Your task to perform on an android device: manage bookmarks in the chrome app Image 0: 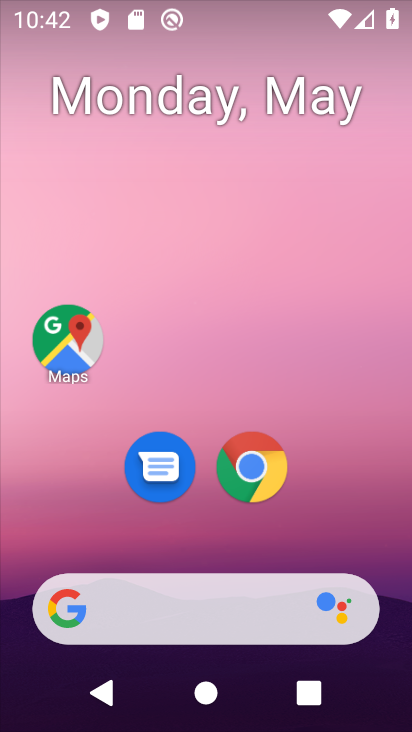
Step 0: click (249, 459)
Your task to perform on an android device: manage bookmarks in the chrome app Image 1: 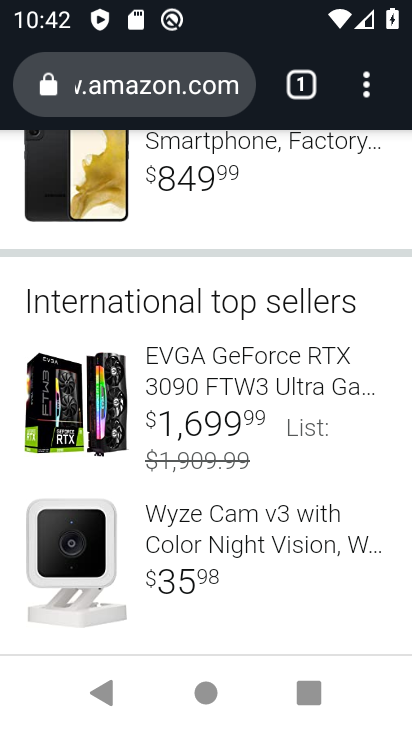
Step 1: click (369, 90)
Your task to perform on an android device: manage bookmarks in the chrome app Image 2: 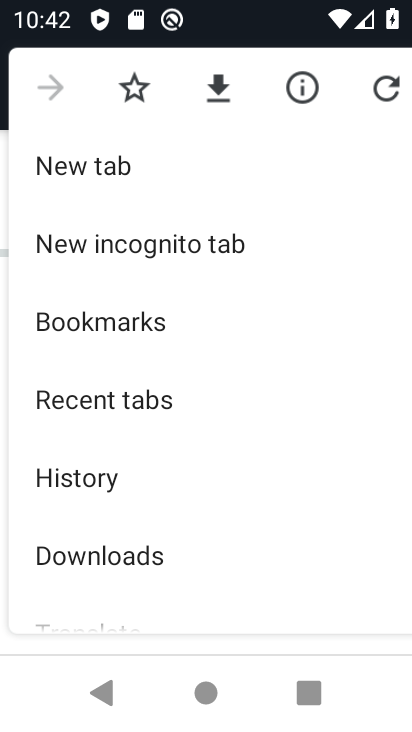
Step 2: click (149, 335)
Your task to perform on an android device: manage bookmarks in the chrome app Image 3: 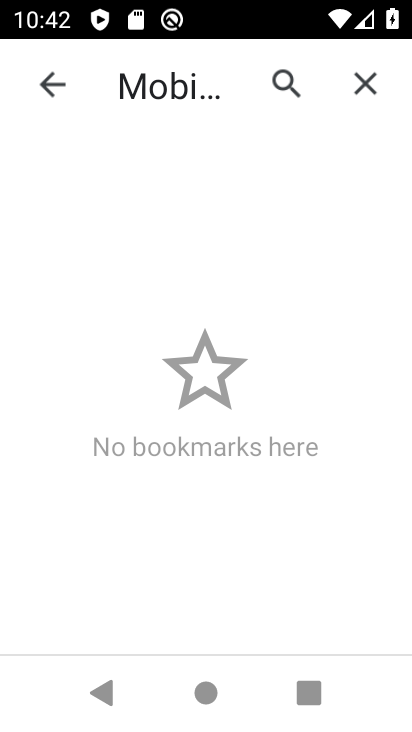
Step 3: task complete